Your task to perform on an android device: install app "Paramount+ | Peak Streaming" Image 0: 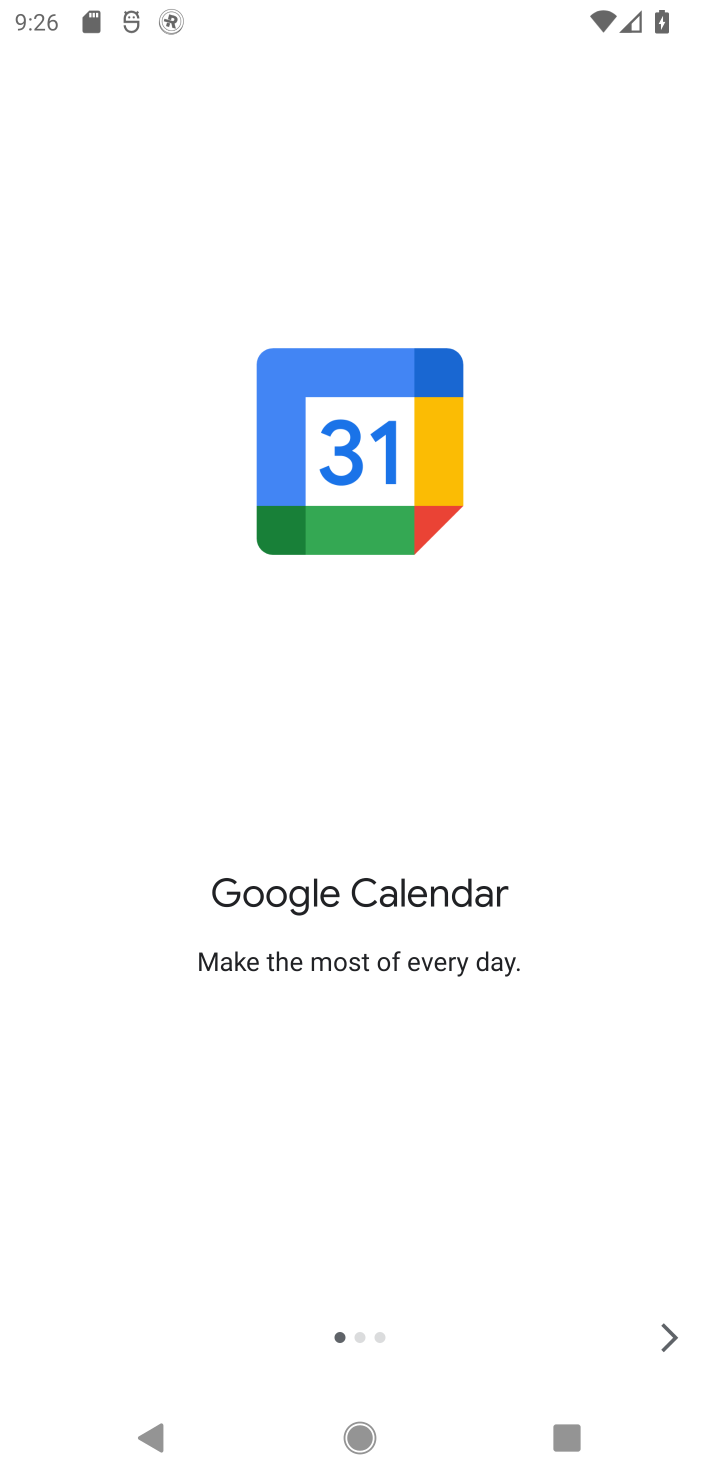
Step 0: press home button
Your task to perform on an android device: install app "Paramount+ | Peak Streaming" Image 1: 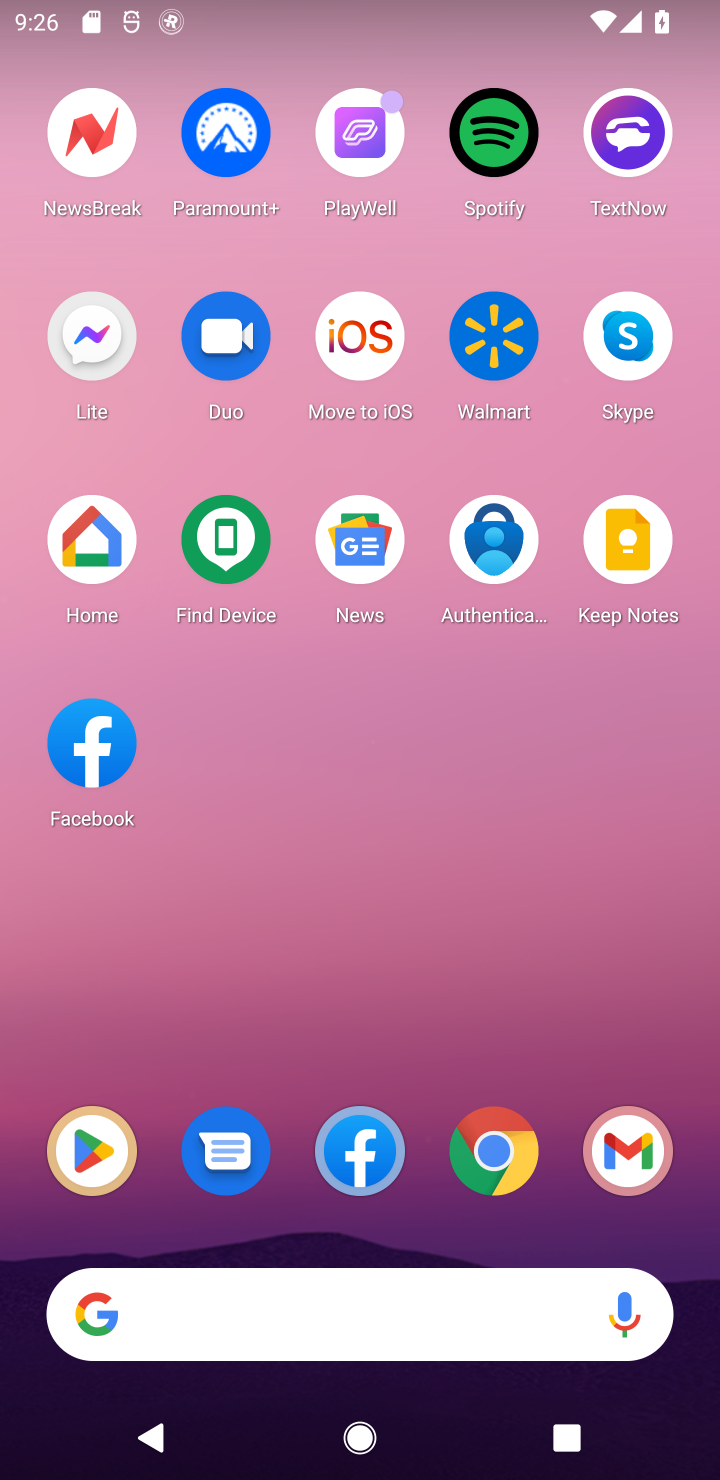
Step 1: click (101, 1176)
Your task to perform on an android device: install app "Paramount+ | Peak Streaming" Image 2: 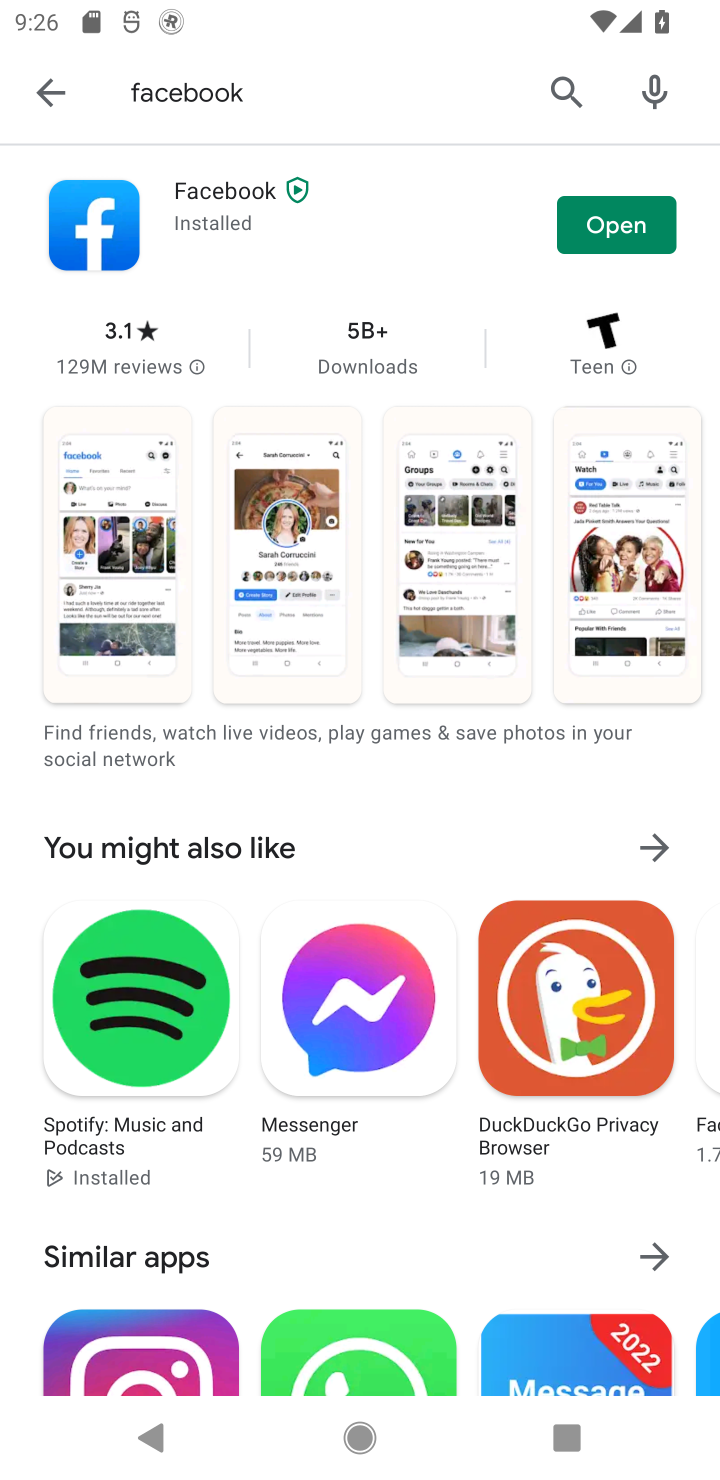
Step 2: click (569, 88)
Your task to perform on an android device: install app "Paramount+ | Peak Streaming" Image 3: 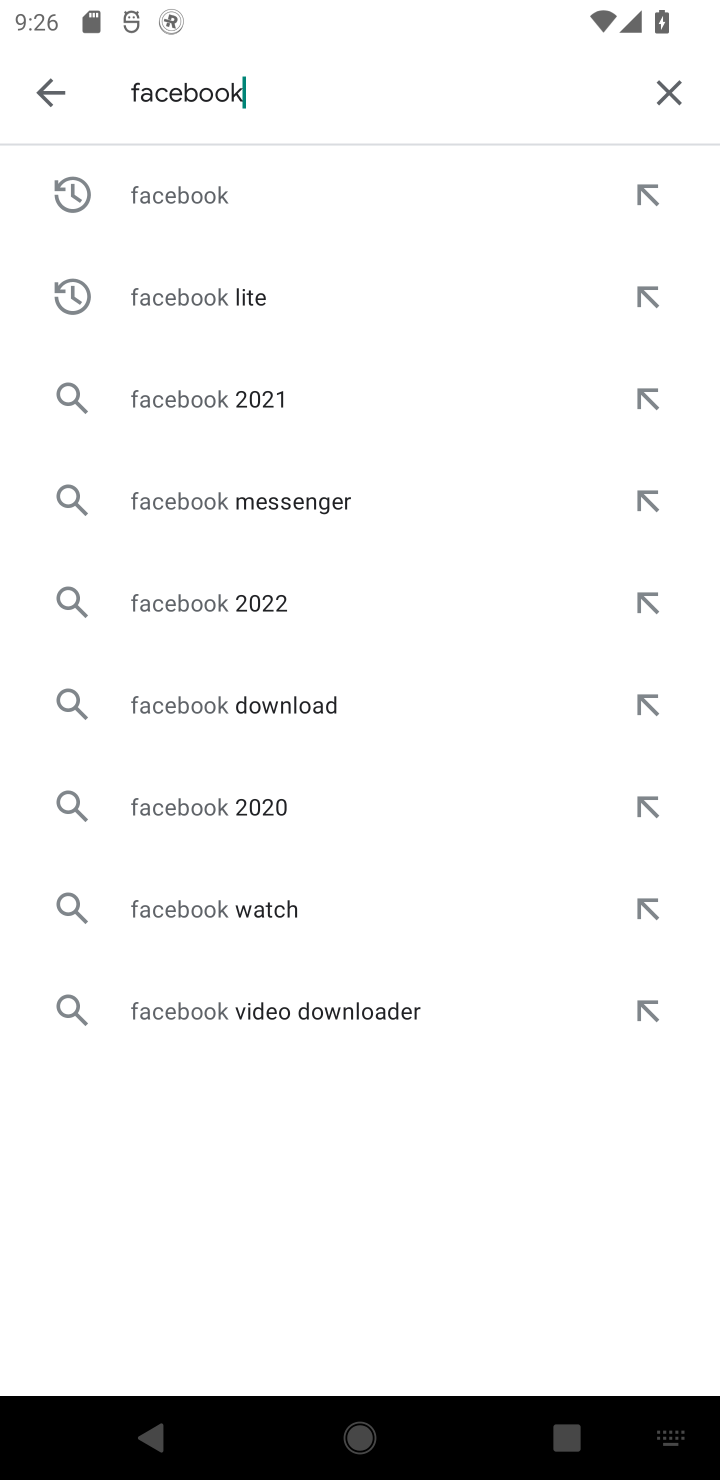
Step 3: click (655, 88)
Your task to perform on an android device: install app "Paramount+ | Peak Streaming" Image 4: 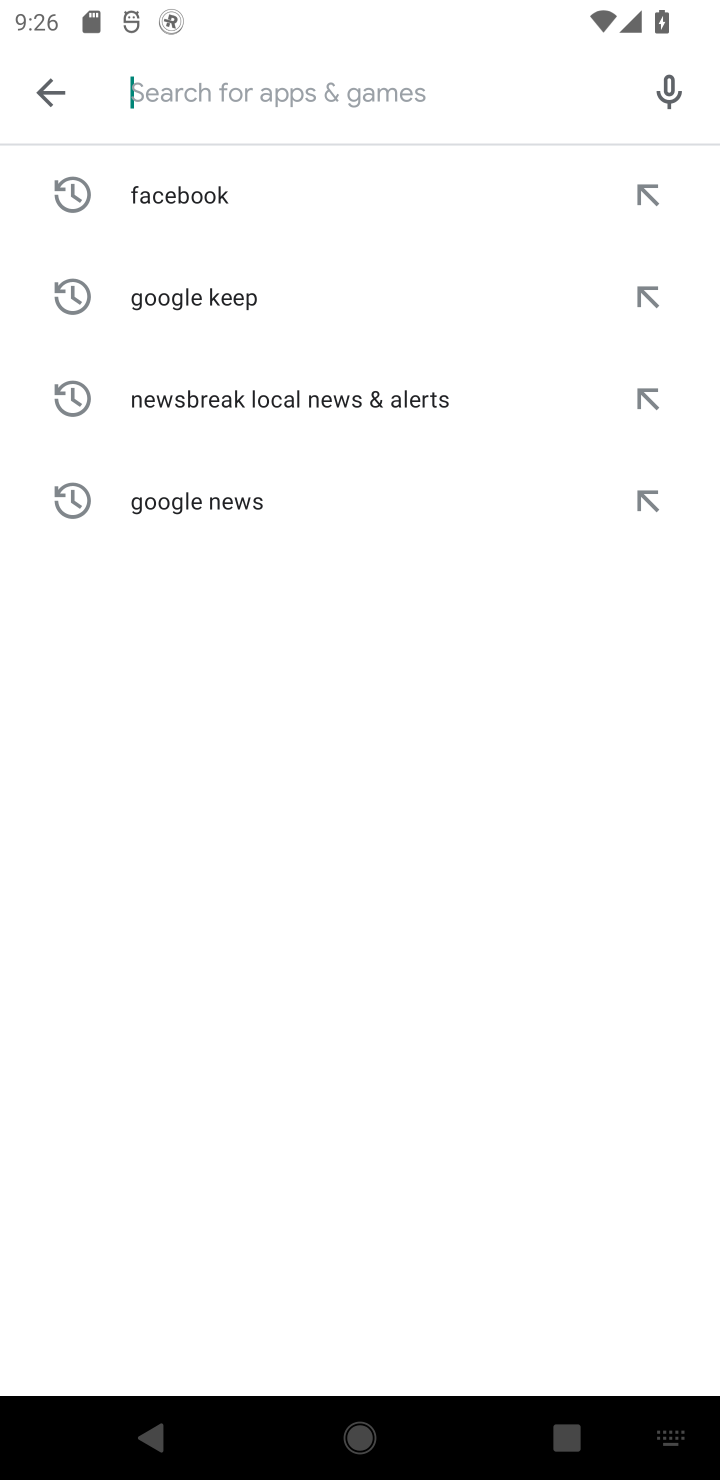
Step 4: type "Paramount+ | Peak Streaming"
Your task to perform on an android device: install app "Paramount+ | Peak Streaming" Image 5: 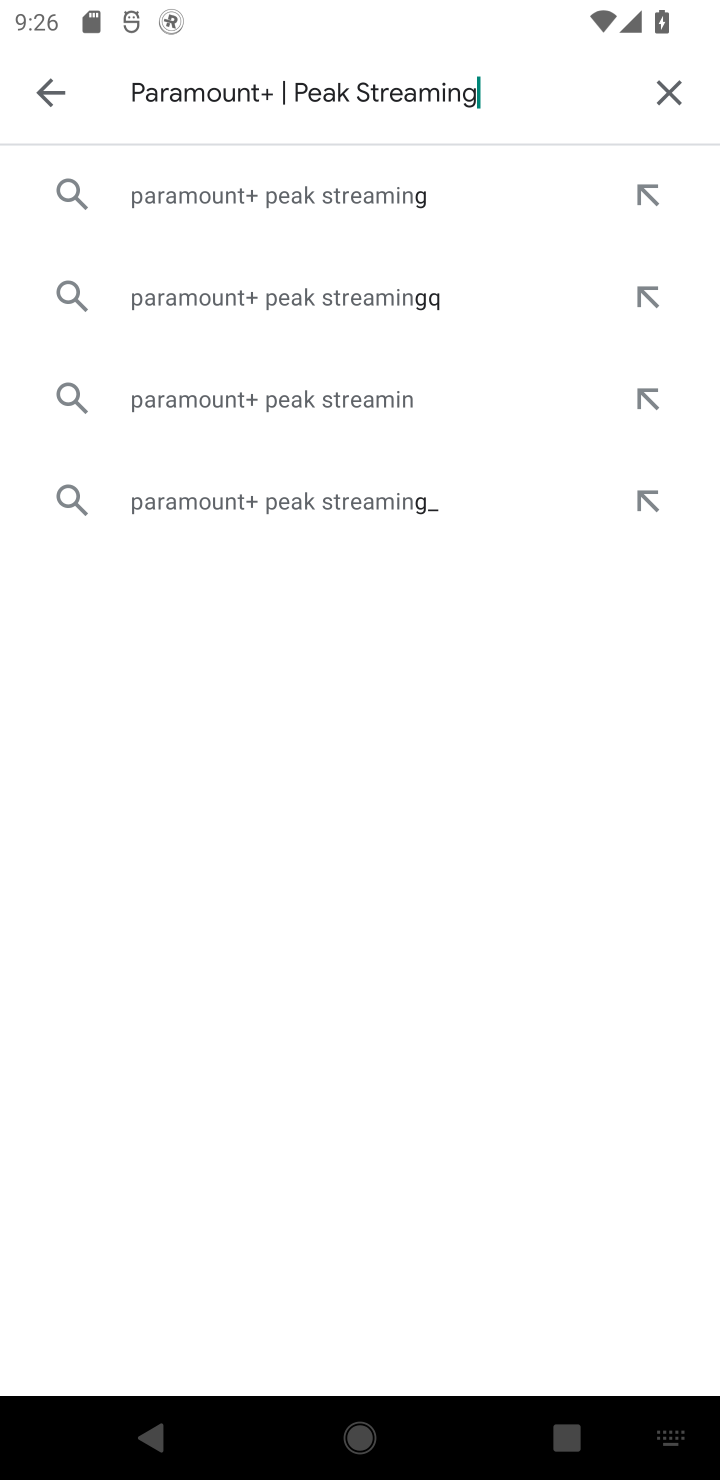
Step 5: type ""
Your task to perform on an android device: install app "Paramount+ | Peak Streaming" Image 6: 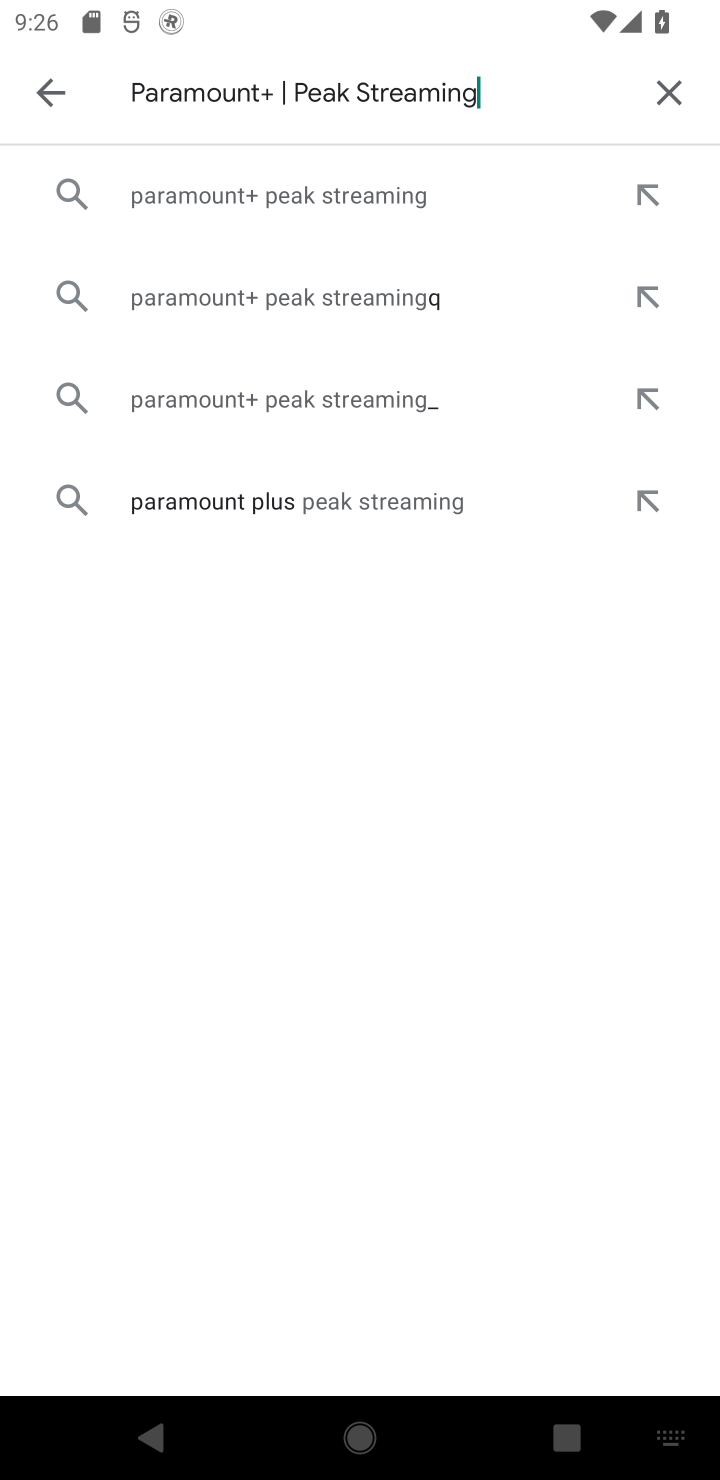
Step 6: click (325, 205)
Your task to perform on an android device: install app "Paramount+ | Peak Streaming" Image 7: 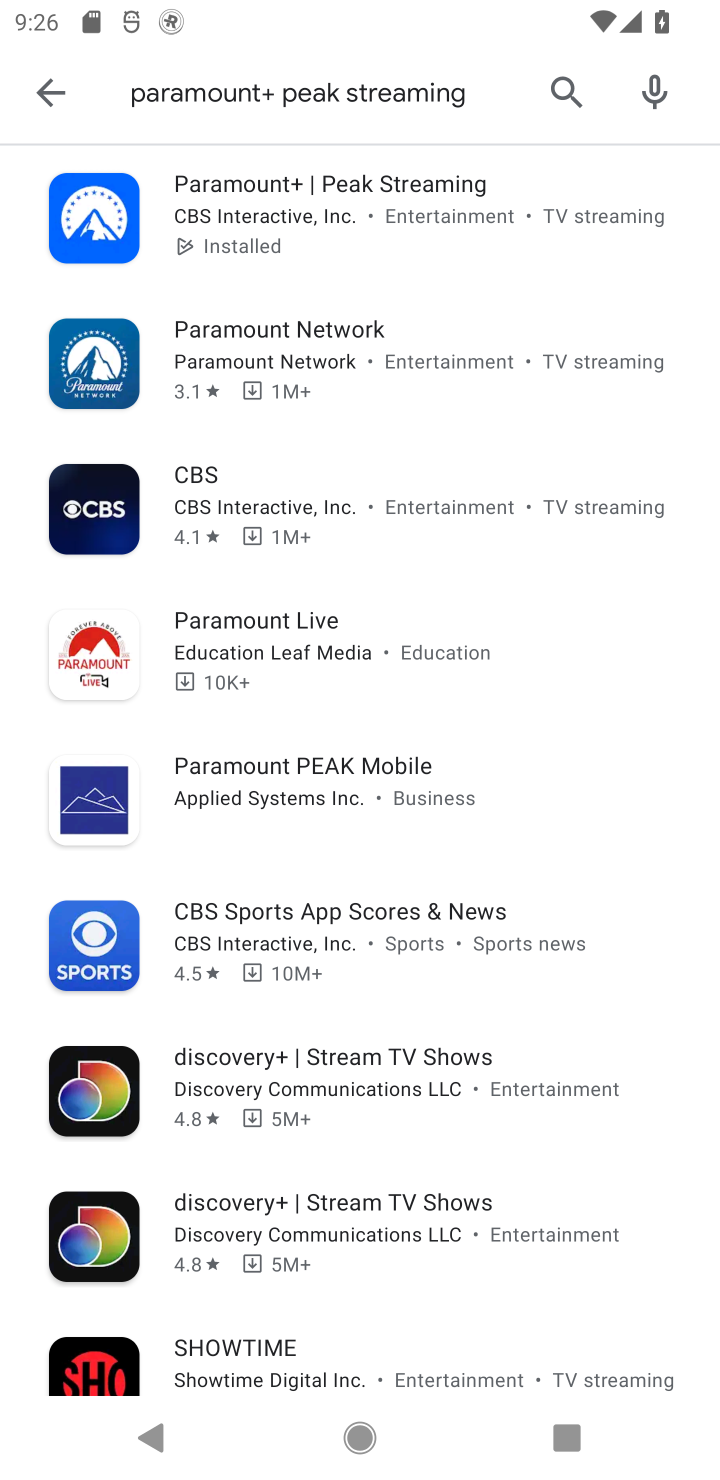
Step 7: click (376, 228)
Your task to perform on an android device: install app "Paramount+ | Peak Streaming" Image 8: 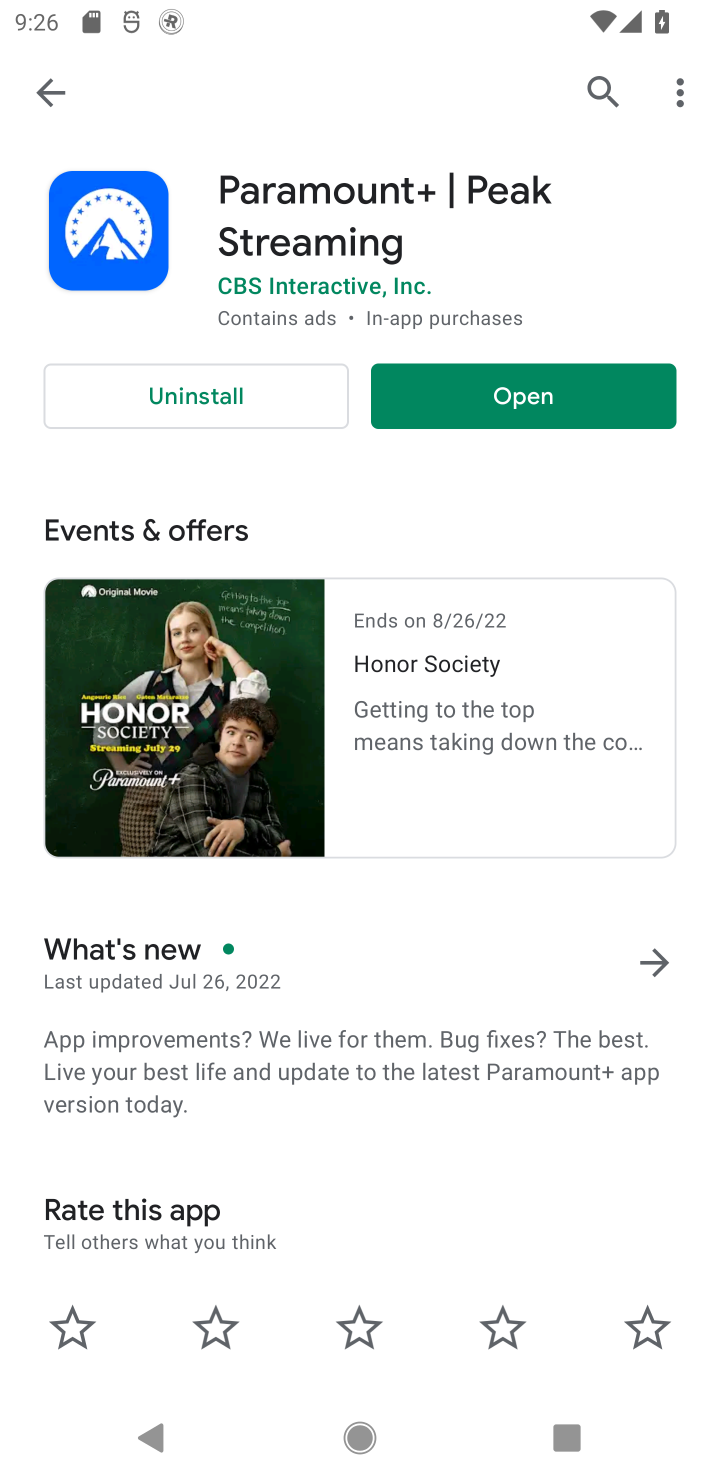
Step 8: task complete